Your task to perform on an android device: toggle location history Image 0: 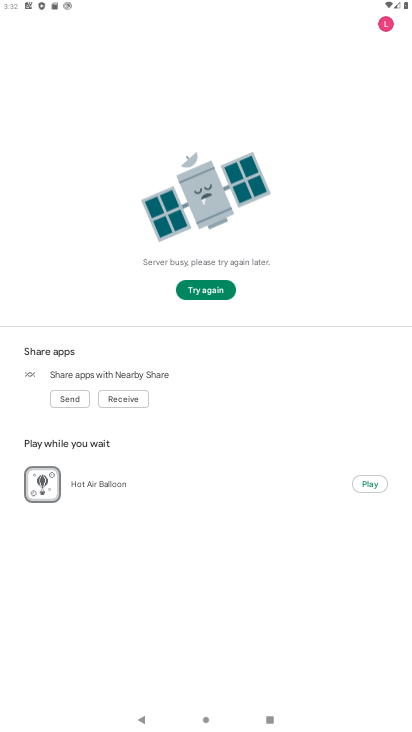
Step 0: press home button
Your task to perform on an android device: toggle location history Image 1: 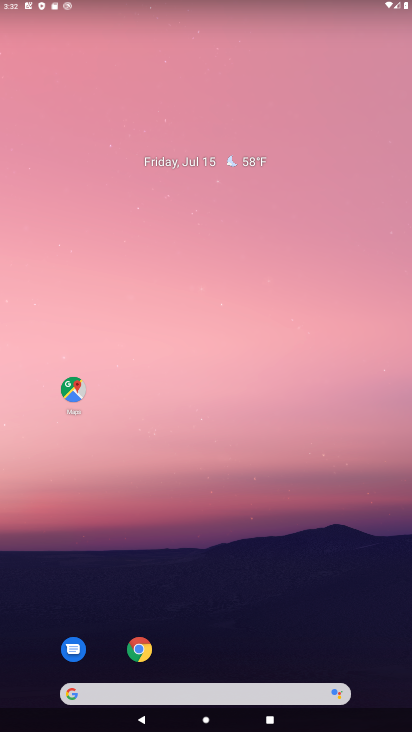
Step 1: drag from (221, 669) to (222, 176)
Your task to perform on an android device: toggle location history Image 2: 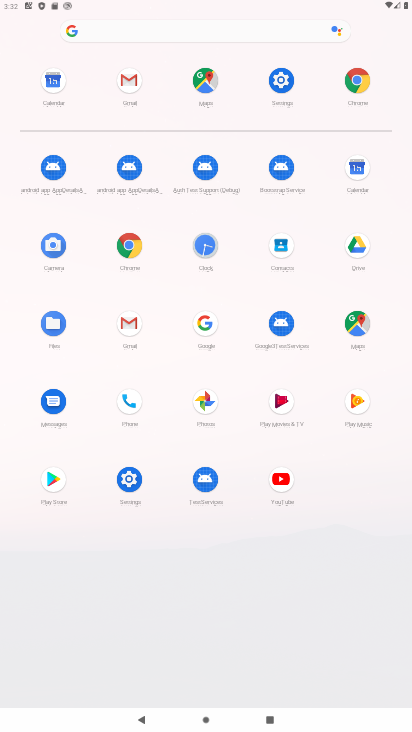
Step 2: click (279, 75)
Your task to perform on an android device: toggle location history Image 3: 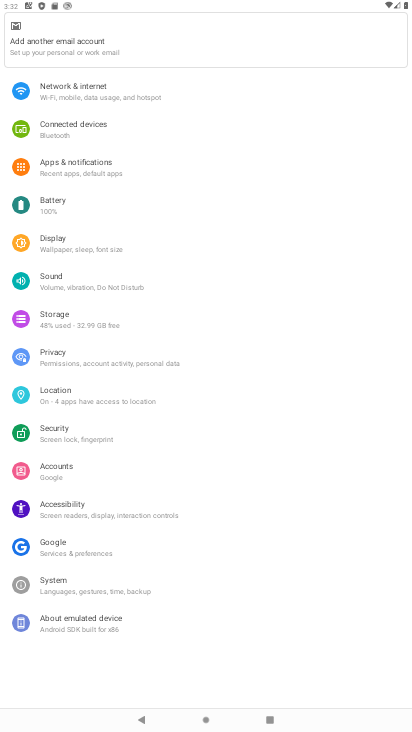
Step 3: click (67, 395)
Your task to perform on an android device: toggle location history Image 4: 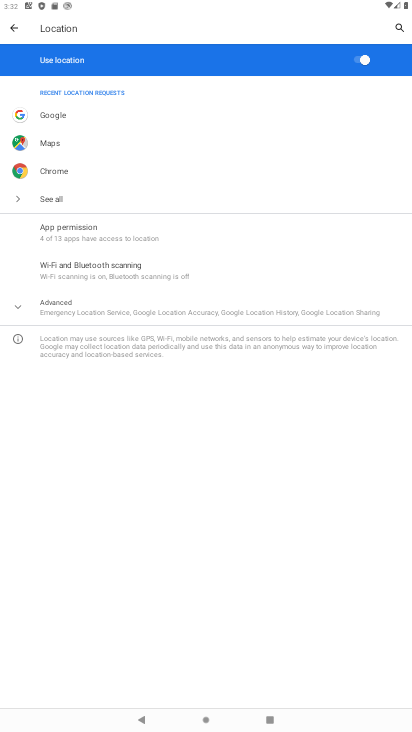
Step 4: click (62, 305)
Your task to perform on an android device: toggle location history Image 5: 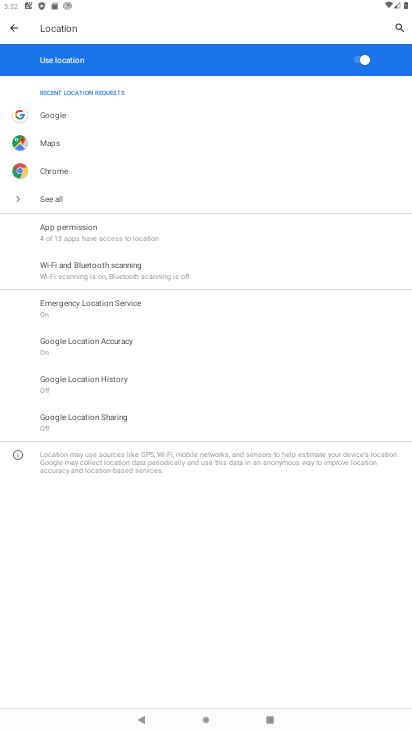
Step 5: click (66, 381)
Your task to perform on an android device: toggle location history Image 6: 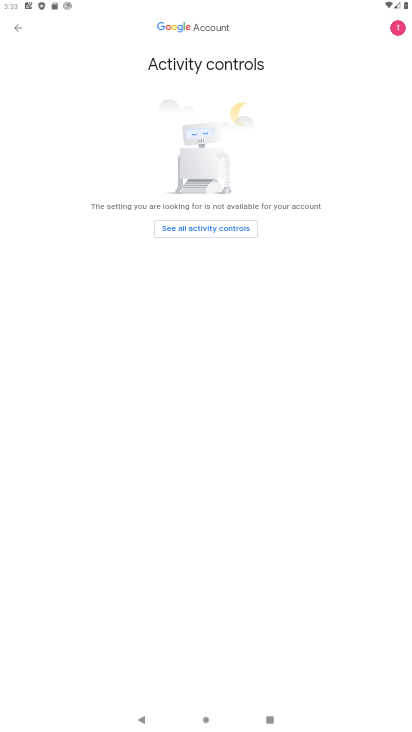
Step 6: task complete